Your task to perform on an android device: Open Google Maps Image 0: 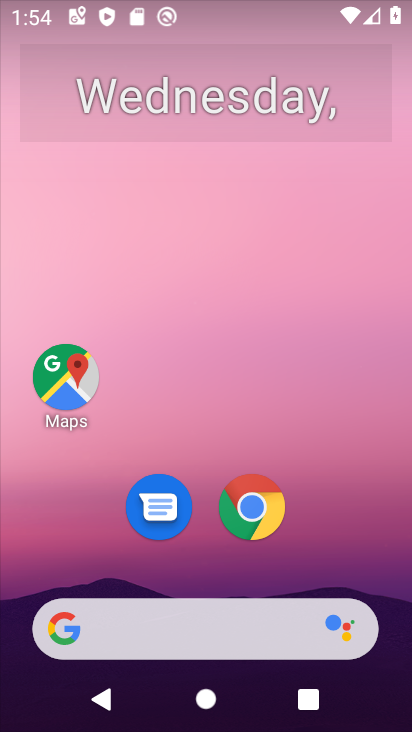
Step 0: press home button
Your task to perform on an android device: Open Google Maps Image 1: 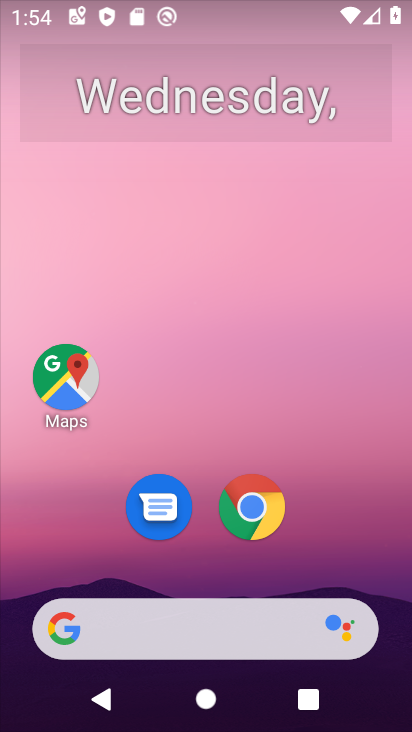
Step 1: drag from (344, 531) to (338, 204)
Your task to perform on an android device: Open Google Maps Image 2: 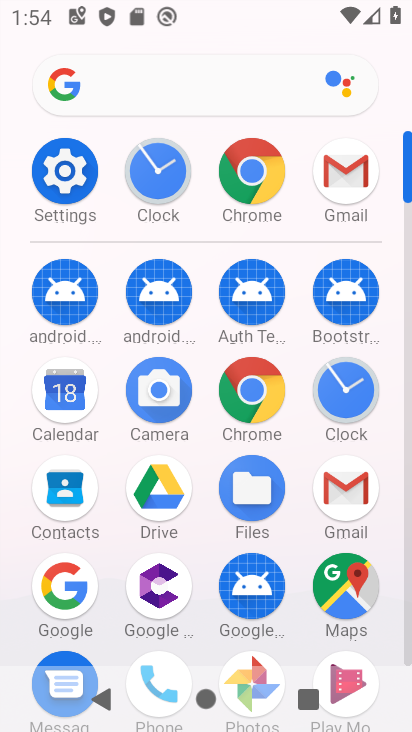
Step 2: click (351, 586)
Your task to perform on an android device: Open Google Maps Image 3: 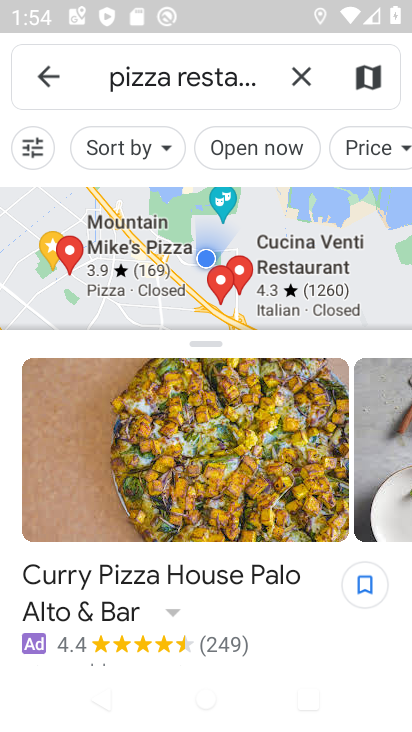
Step 3: task complete